Your task to perform on an android device: Search for vegetarian restaurants on Maps Image 0: 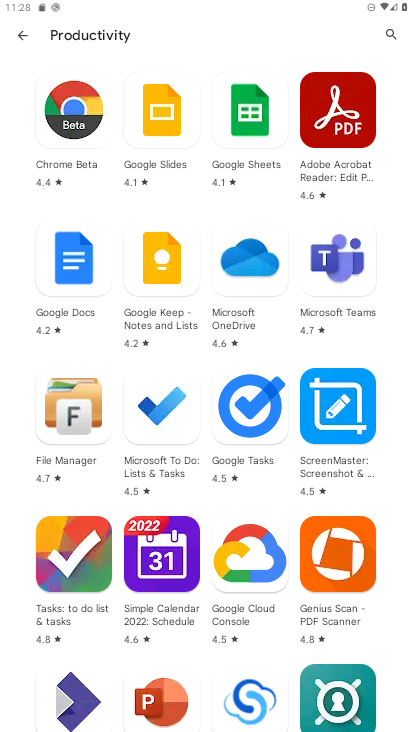
Step 0: press home button
Your task to perform on an android device: Search for vegetarian restaurants on Maps Image 1: 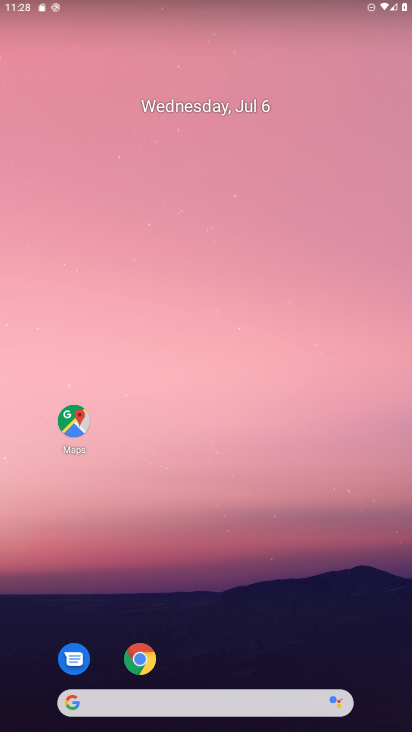
Step 1: click (74, 425)
Your task to perform on an android device: Search for vegetarian restaurants on Maps Image 2: 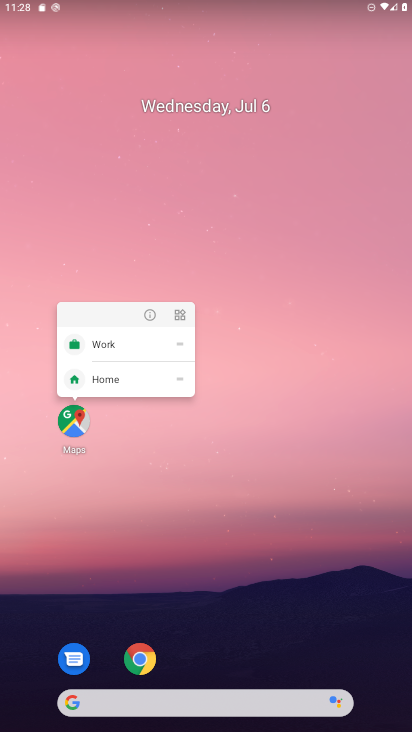
Step 2: click (66, 431)
Your task to perform on an android device: Search for vegetarian restaurants on Maps Image 3: 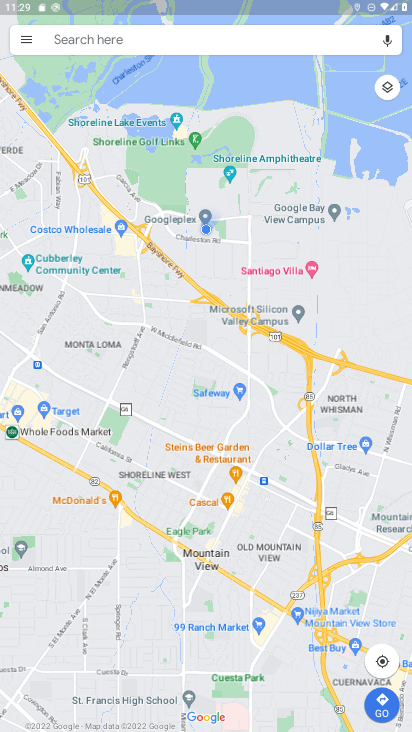
Step 3: click (226, 40)
Your task to perform on an android device: Search for vegetarian restaurants on Maps Image 4: 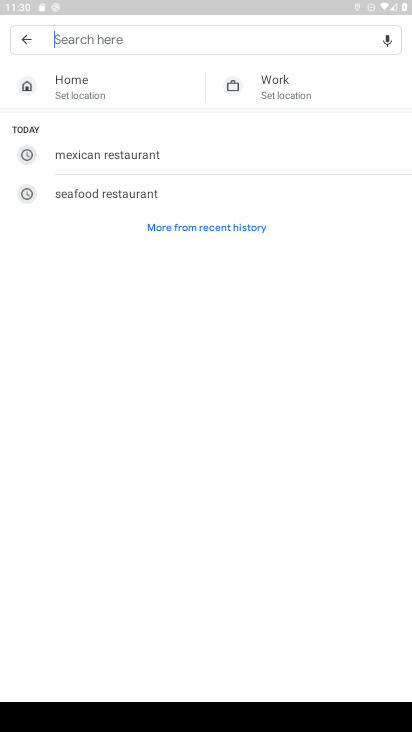
Step 4: click (105, 36)
Your task to perform on an android device: Search for vegetarian restaurants on Maps Image 5: 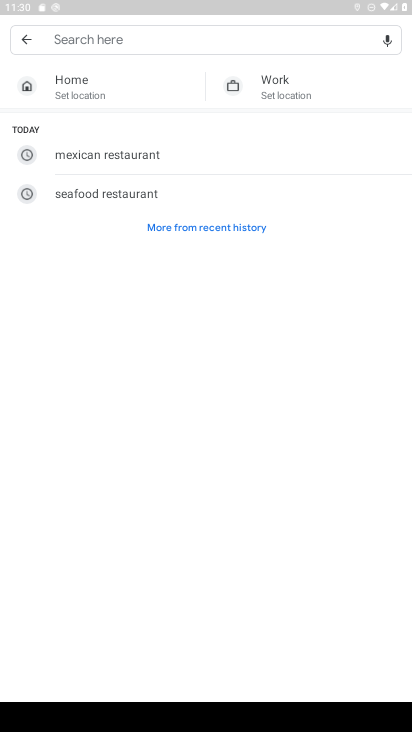
Step 5: click (114, 35)
Your task to perform on an android device: Search for vegetarian restaurants on Maps Image 6: 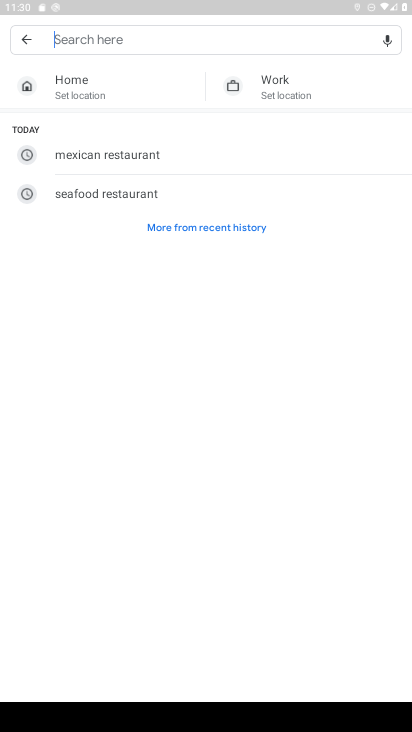
Step 6: type "vegetarian restaurants"
Your task to perform on an android device: Search for vegetarian restaurants on Maps Image 7: 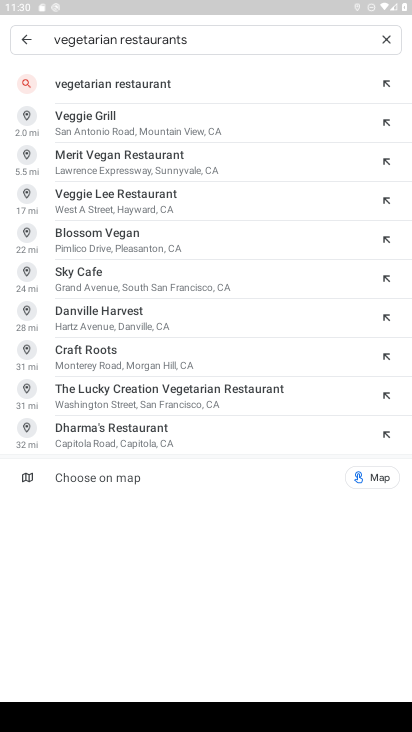
Step 7: click (116, 84)
Your task to perform on an android device: Search for vegetarian restaurants on Maps Image 8: 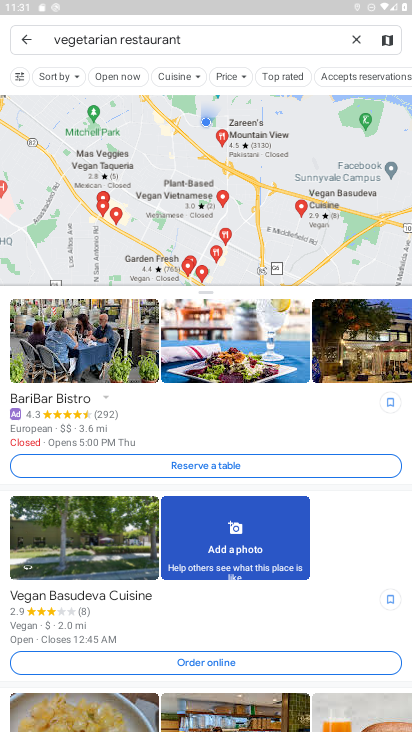
Step 8: task complete